Your task to perform on an android device: uninstall "Gboard" Image 0: 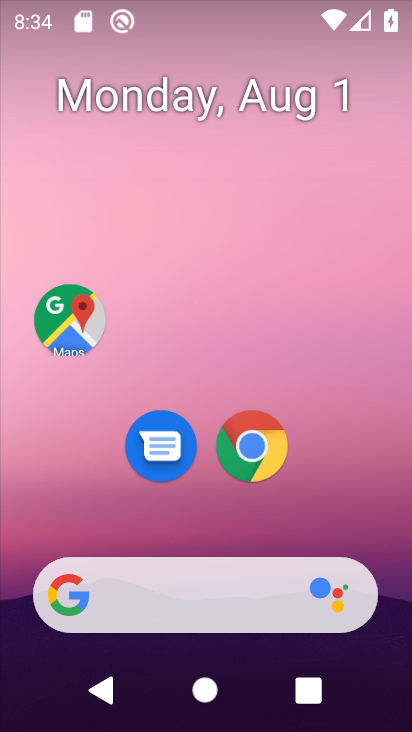
Step 0: drag from (211, 520) to (205, 82)
Your task to perform on an android device: uninstall "Gboard" Image 1: 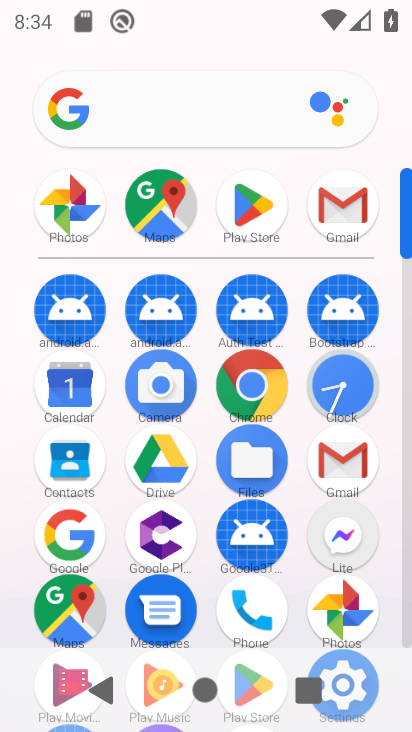
Step 1: click (262, 198)
Your task to perform on an android device: uninstall "Gboard" Image 2: 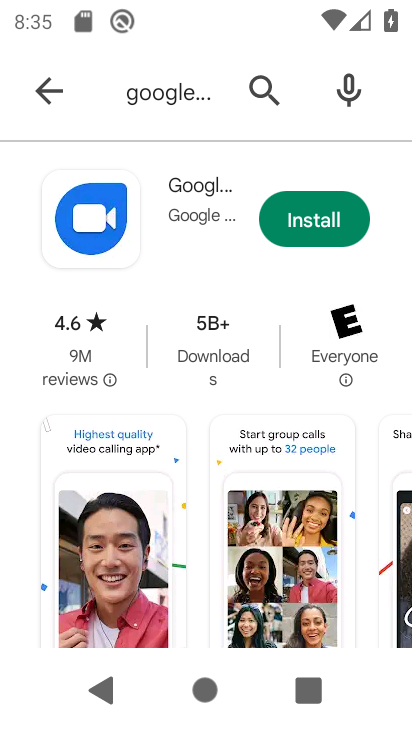
Step 2: click (268, 100)
Your task to perform on an android device: uninstall "Gboard" Image 3: 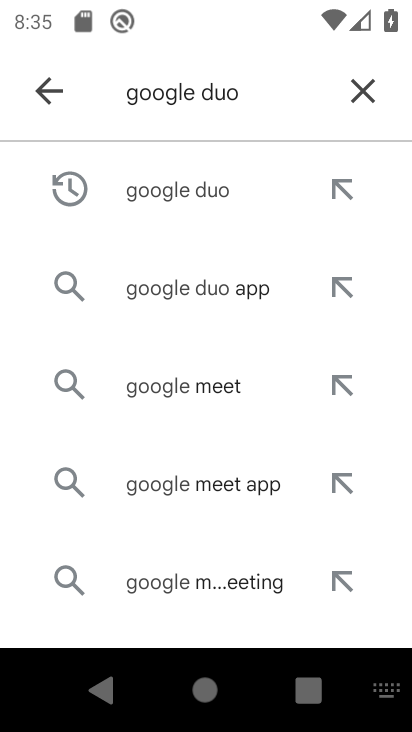
Step 3: click (358, 84)
Your task to perform on an android device: uninstall "Gboard" Image 4: 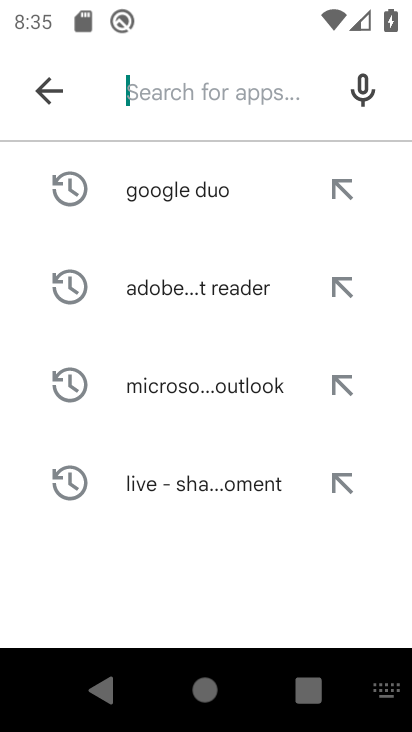
Step 4: type "Gboard"
Your task to perform on an android device: uninstall "Gboard" Image 5: 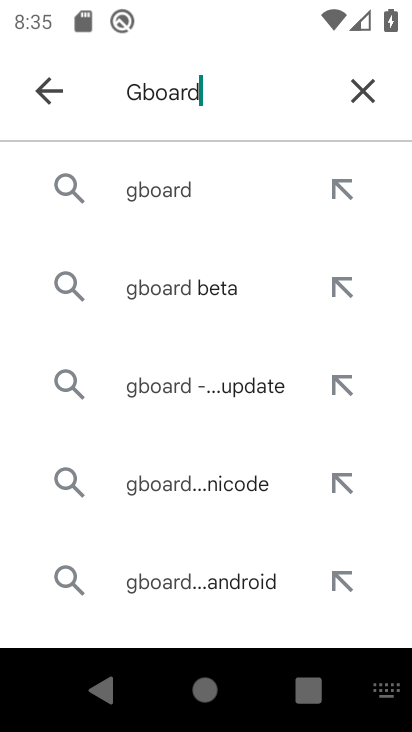
Step 5: click (183, 191)
Your task to perform on an android device: uninstall "Gboard" Image 6: 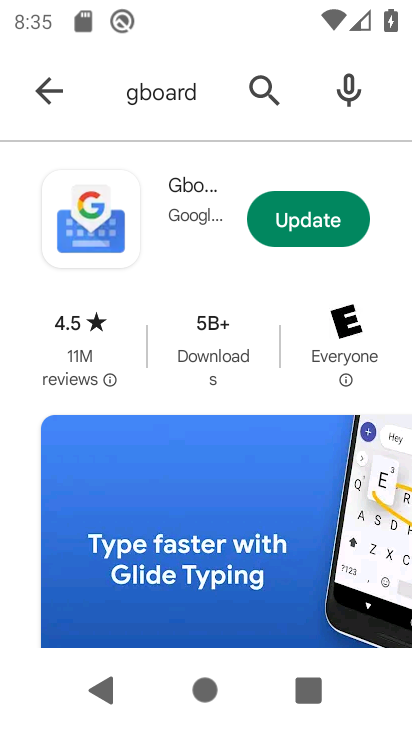
Step 6: click (191, 202)
Your task to perform on an android device: uninstall "Gboard" Image 7: 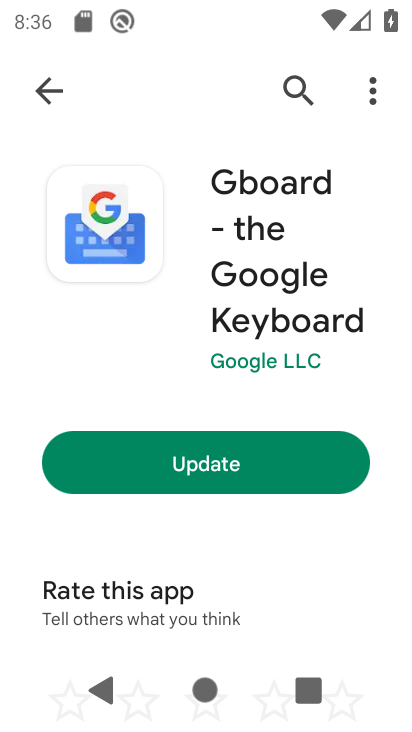
Step 7: click (207, 465)
Your task to perform on an android device: uninstall "Gboard" Image 8: 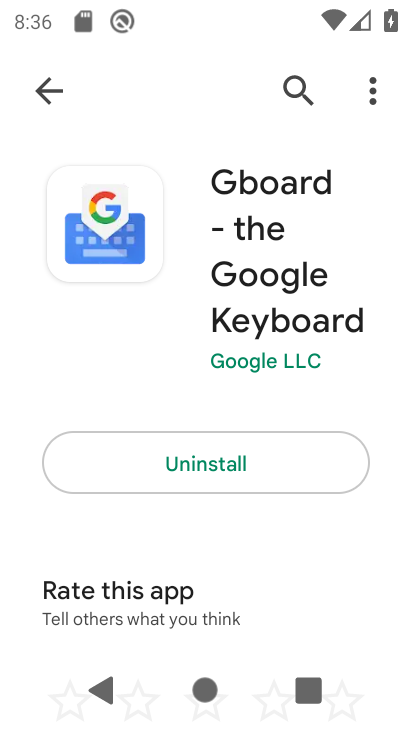
Step 8: click (317, 466)
Your task to perform on an android device: uninstall "Gboard" Image 9: 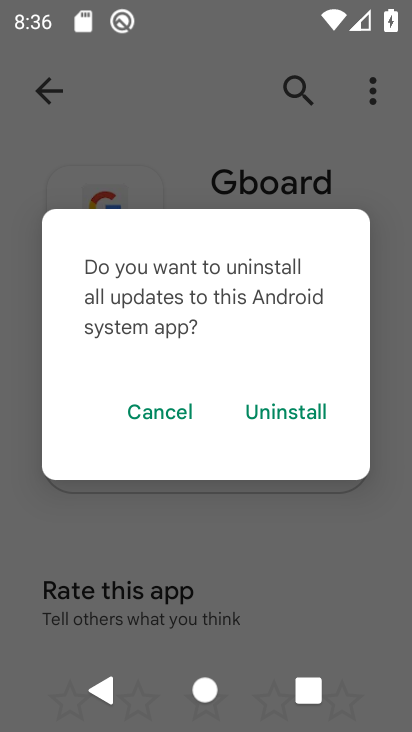
Step 9: click (262, 416)
Your task to perform on an android device: uninstall "Gboard" Image 10: 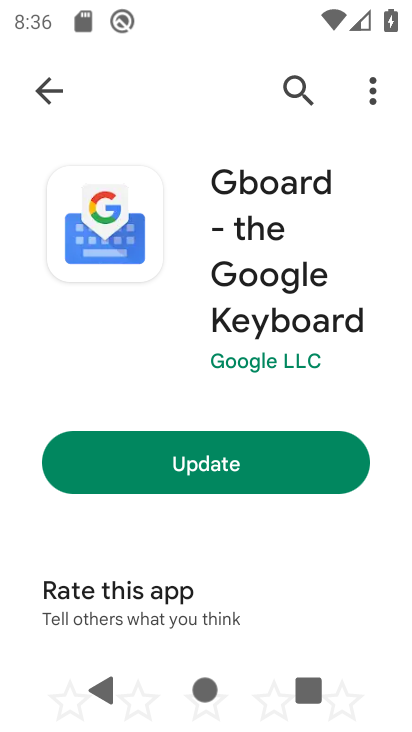
Step 10: task complete